Your task to perform on an android device: Open the web browser Image 0: 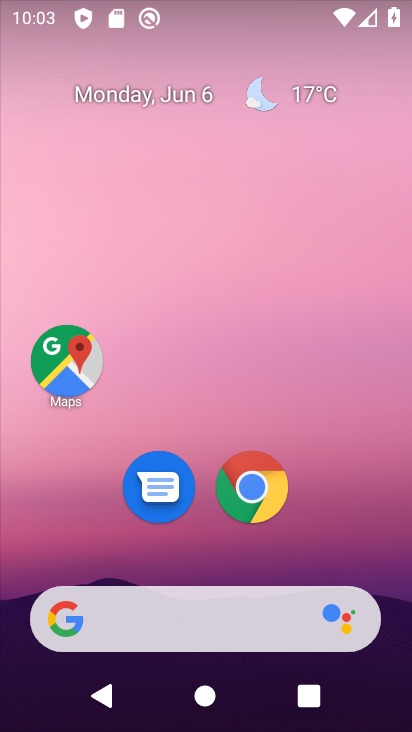
Step 0: click (240, 478)
Your task to perform on an android device: Open the web browser Image 1: 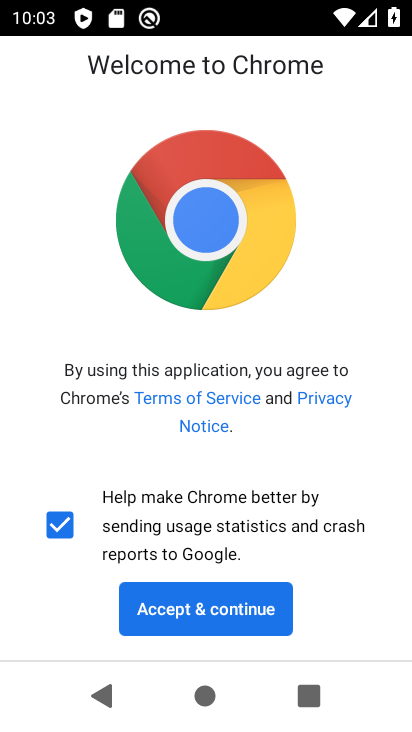
Step 1: click (183, 603)
Your task to perform on an android device: Open the web browser Image 2: 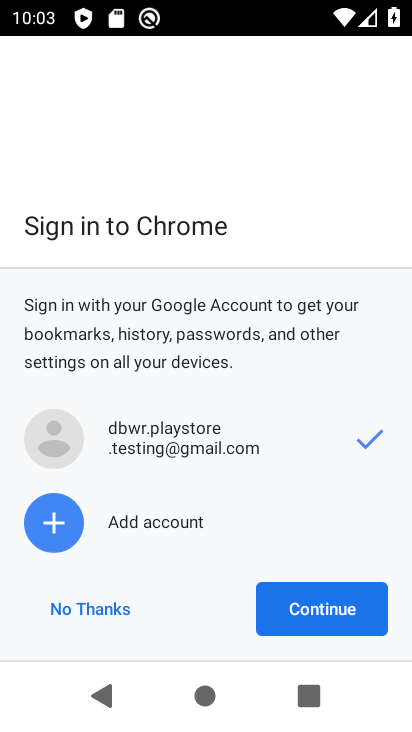
Step 2: click (305, 615)
Your task to perform on an android device: Open the web browser Image 3: 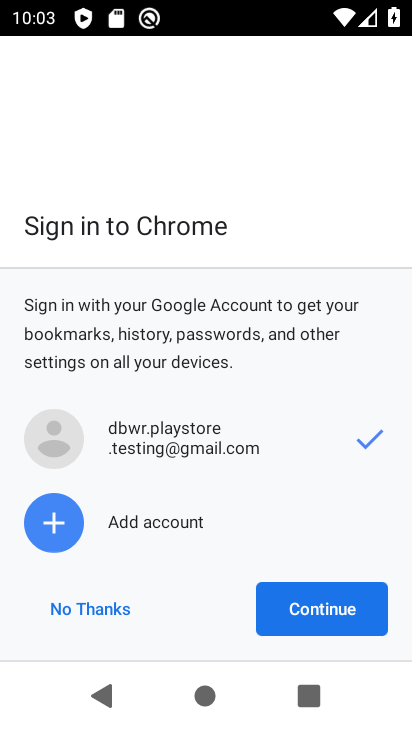
Step 3: click (305, 615)
Your task to perform on an android device: Open the web browser Image 4: 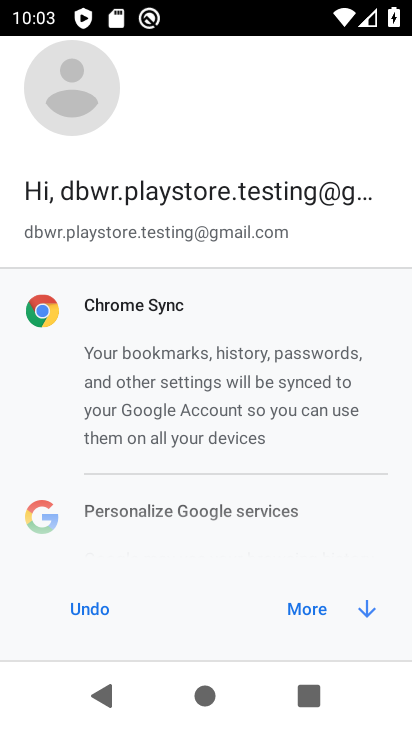
Step 4: click (305, 615)
Your task to perform on an android device: Open the web browser Image 5: 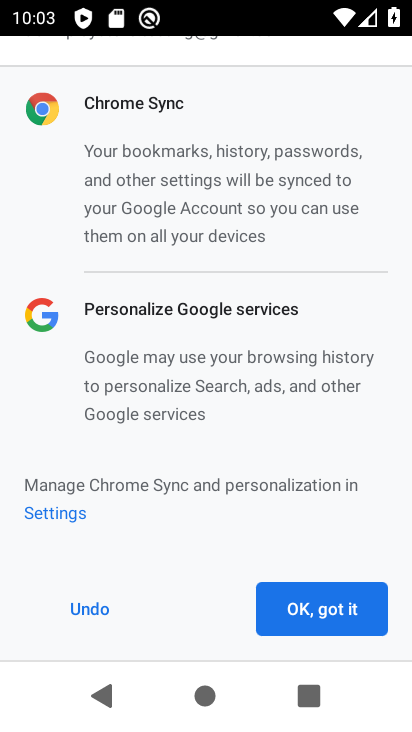
Step 5: click (305, 615)
Your task to perform on an android device: Open the web browser Image 6: 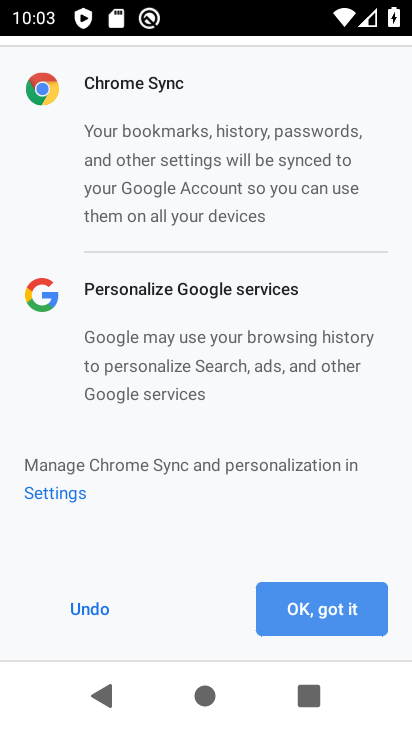
Step 6: click (305, 615)
Your task to perform on an android device: Open the web browser Image 7: 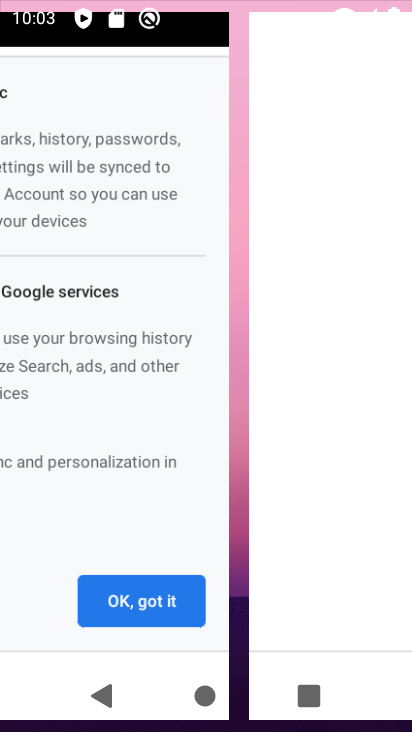
Step 7: click (305, 615)
Your task to perform on an android device: Open the web browser Image 8: 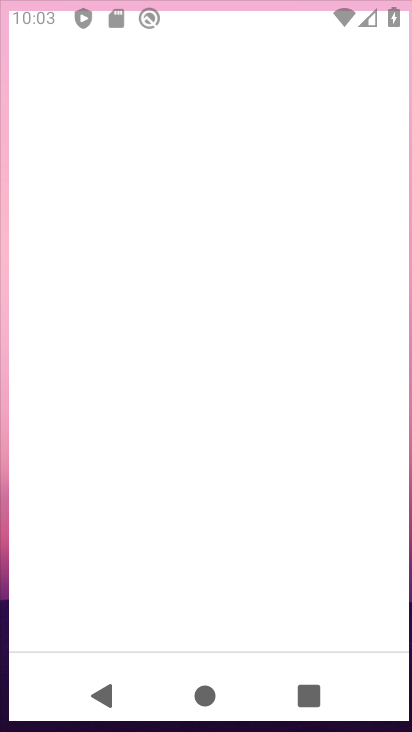
Step 8: click (305, 615)
Your task to perform on an android device: Open the web browser Image 9: 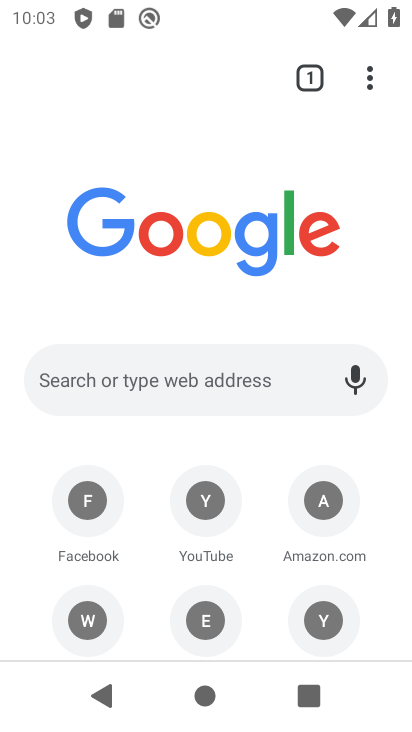
Step 9: click (103, 73)
Your task to perform on an android device: Open the web browser Image 10: 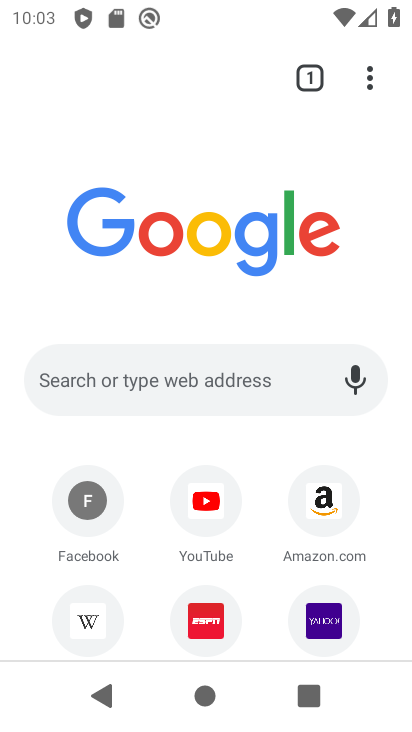
Step 10: click (131, 362)
Your task to perform on an android device: Open the web browser Image 11: 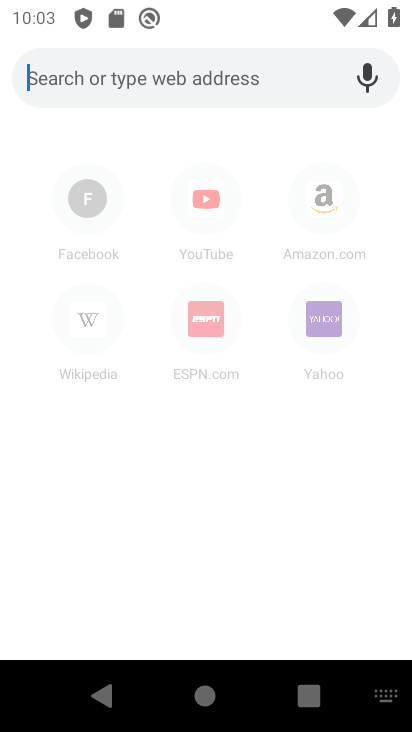
Step 11: type " web browser"
Your task to perform on an android device: Open the web browser Image 12: 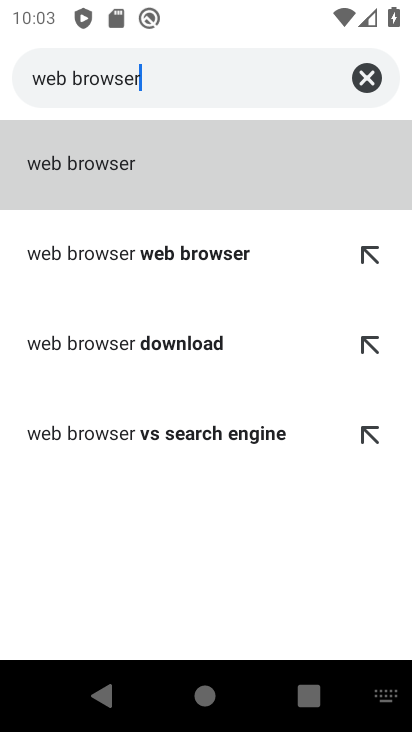
Step 12: click (117, 145)
Your task to perform on an android device: Open the web browser Image 13: 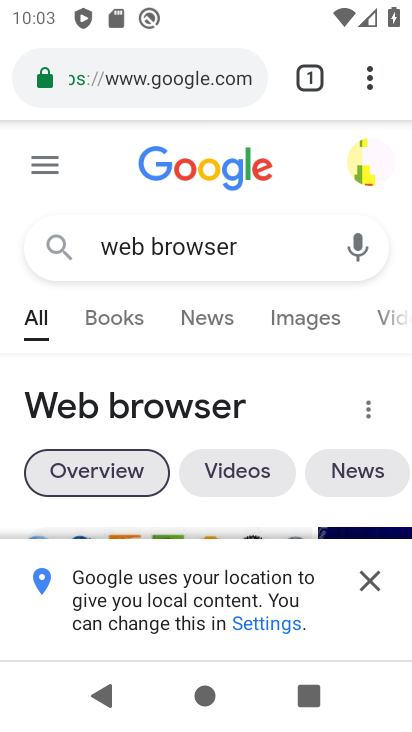
Step 13: task complete